Your task to perform on an android device: see creations saved in the google photos Image 0: 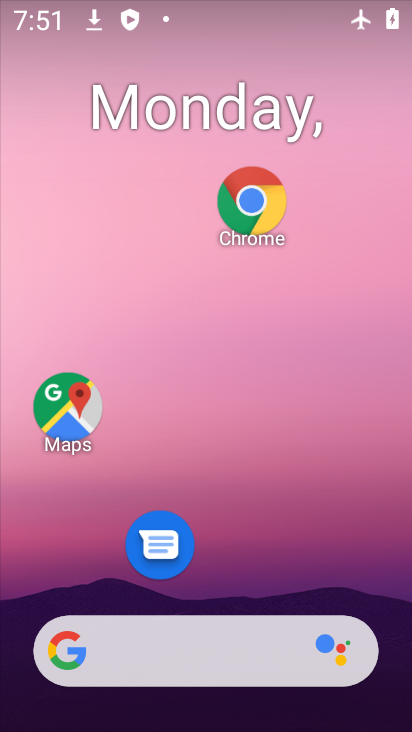
Step 0: drag from (258, 544) to (261, 155)
Your task to perform on an android device: see creations saved in the google photos Image 1: 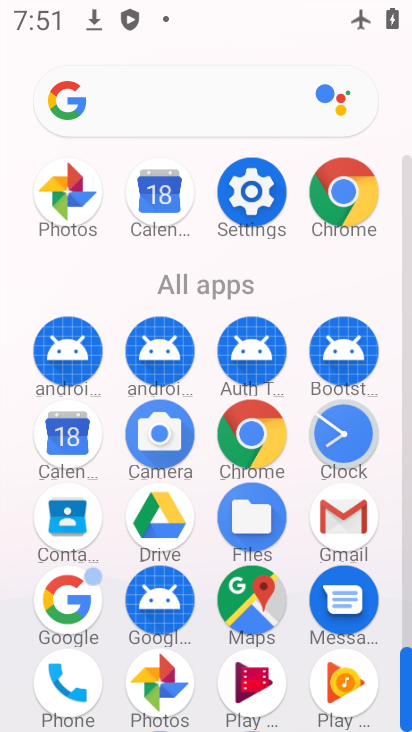
Step 1: click (145, 675)
Your task to perform on an android device: see creations saved in the google photos Image 2: 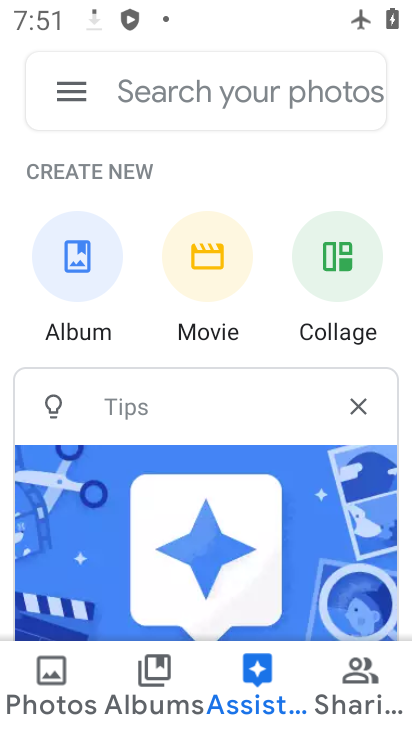
Step 2: click (185, 86)
Your task to perform on an android device: see creations saved in the google photos Image 3: 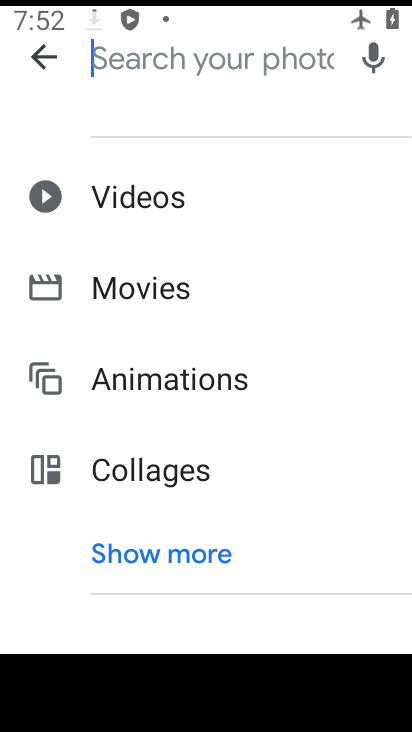
Step 3: click (172, 550)
Your task to perform on an android device: see creations saved in the google photos Image 4: 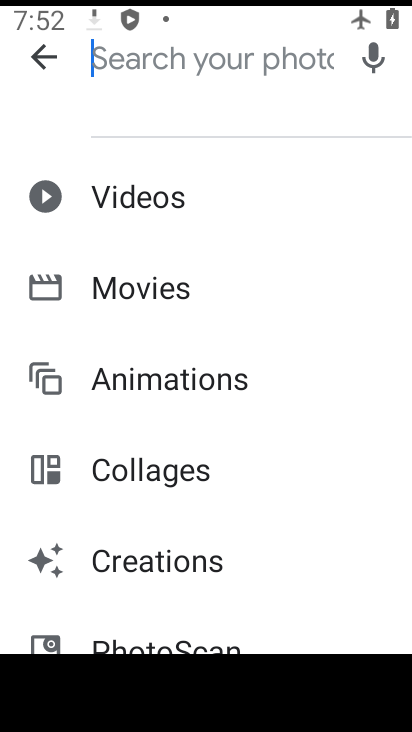
Step 4: click (172, 550)
Your task to perform on an android device: see creations saved in the google photos Image 5: 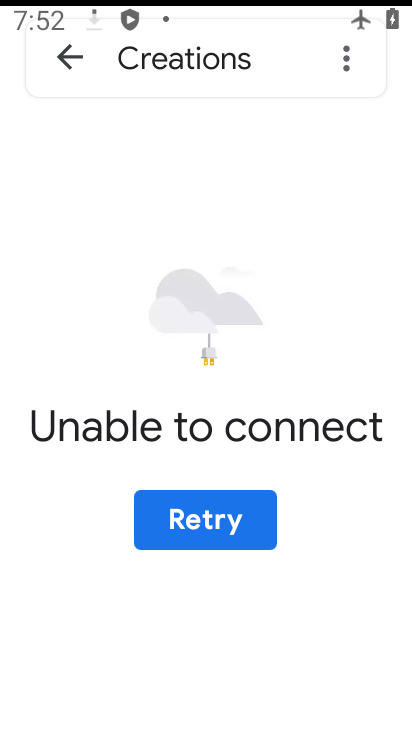
Step 5: task complete